Your task to perform on an android device: turn notification dots on Image 0: 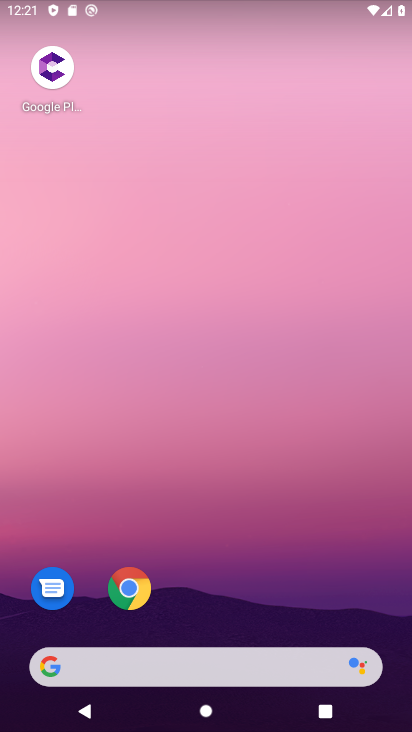
Step 0: drag from (175, 552) to (175, 360)
Your task to perform on an android device: turn notification dots on Image 1: 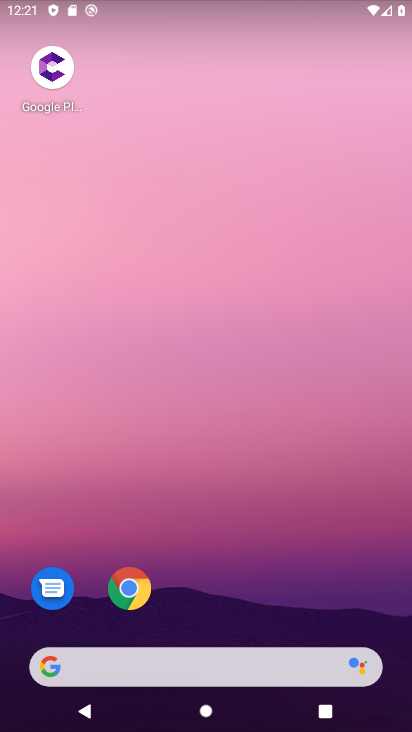
Step 1: drag from (186, 613) to (185, 284)
Your task to perform on an android device: turn notification dots on Image 2: 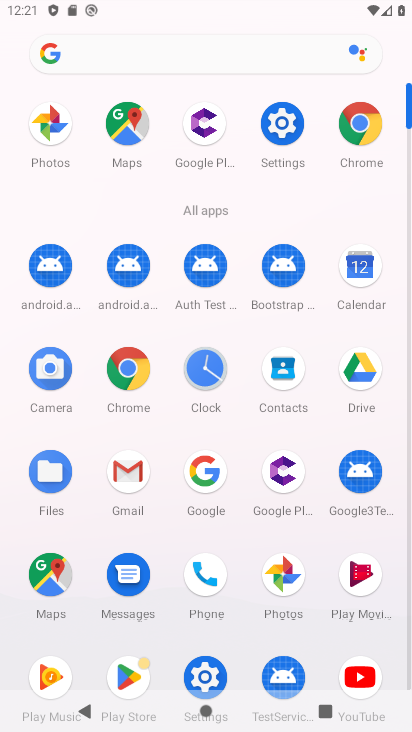
Step 2: click (287, 126)
Your task to perform on an android device: turn notification dots on Image 3: 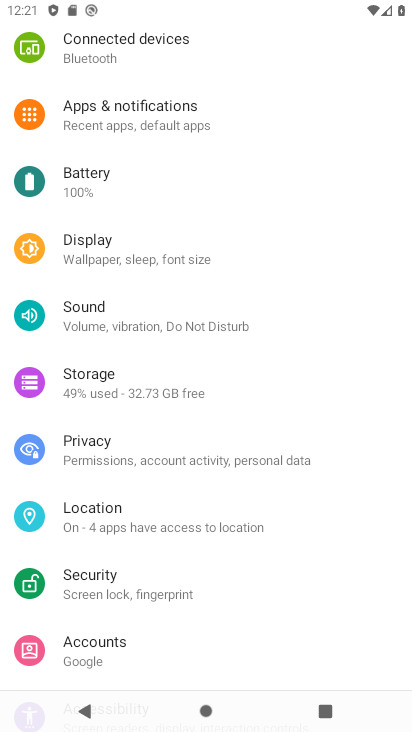
Step 3: click (105, 119)
Your task to perform on an android device: turn notification dots on Image 4: 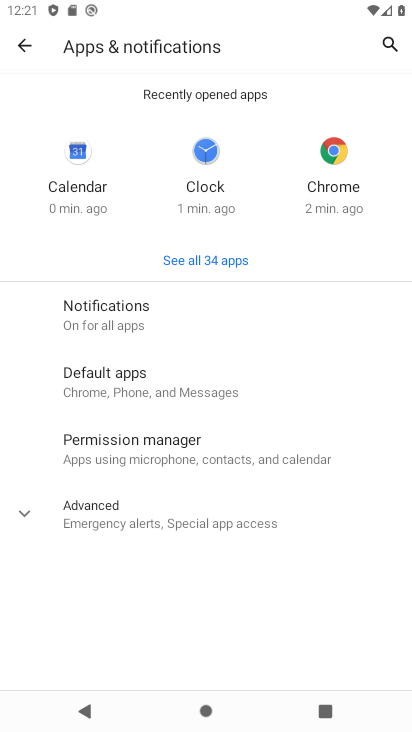
Step 4: click (134, 311)
Your task to perform on an android device: turn notification dots on Image 5: 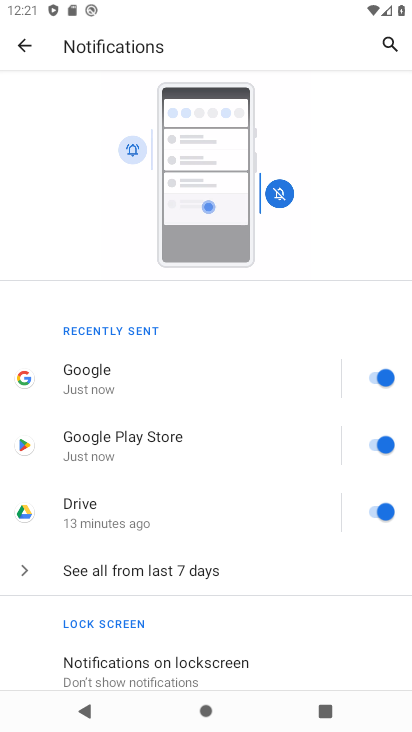
Step 5: drag from (163, 675) to (152, 333)
Your task to perform on an android device: turn notification dots on Image 6: 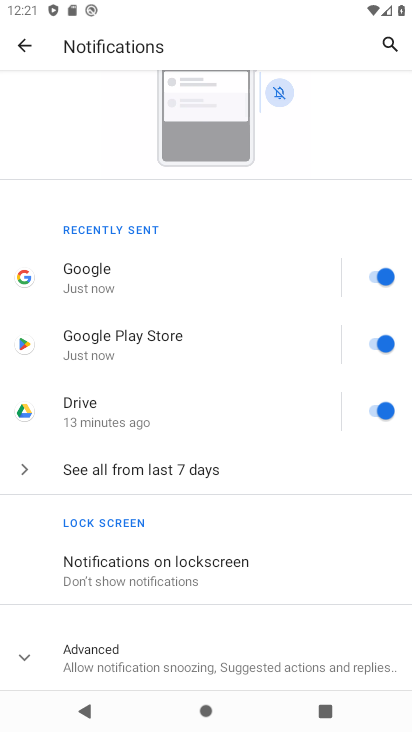
Step 6: click (116, 670)
Your task to perform on an android device: turn notification dots on Image 7: 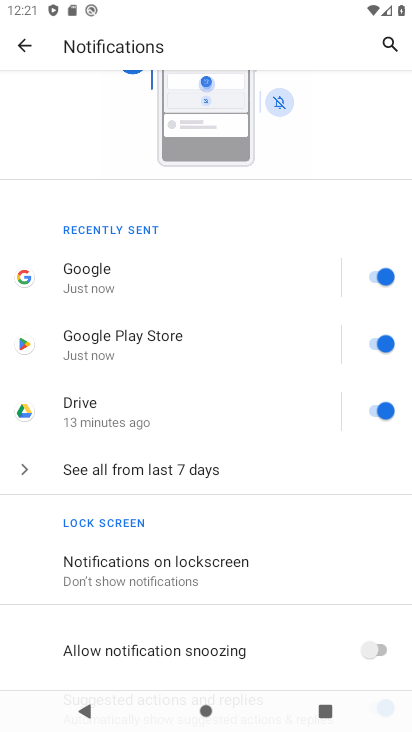
Step 7: task complete